Your task to perform on an android device: Open Chrome and go to the settings page Image 0: 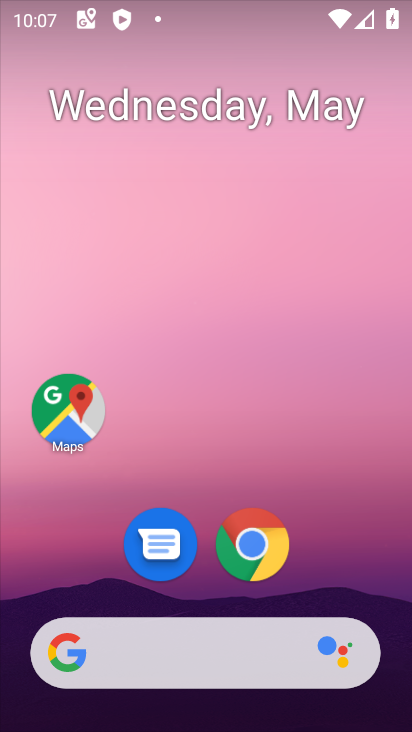
Step 0: drag from (327, 634) to (381, 143)
Your task to perform on an android device: Open Chrome and go to the settings page Image 1: 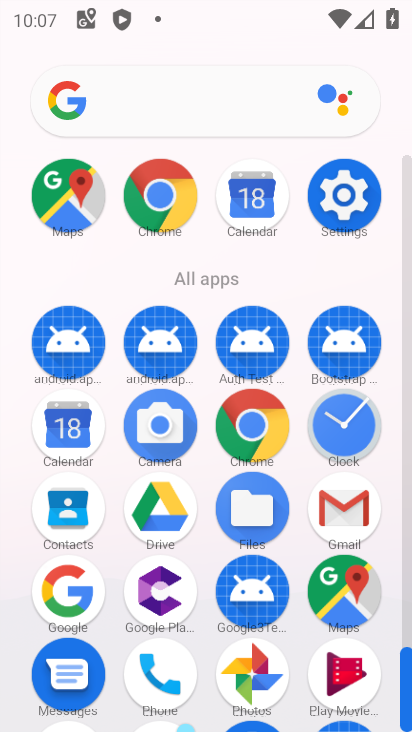
Step 1: click (265, 414)
Your task to perform on an android device: Open Chrome and go to the settings page Image 2: 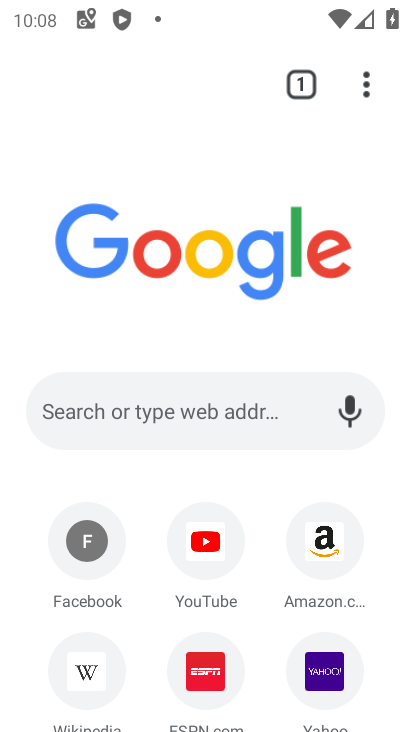
Step 2: task complete